Your task to perform on an android device: turn on translation in the chrome app Image 0: 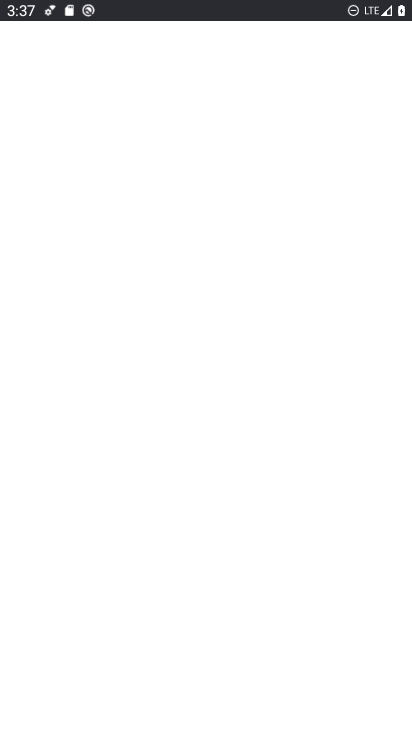
Step 0: drag from (227, 555) to (252, 210)
Your task to perform on an android device: turn on translation in the chrome app Image 1: 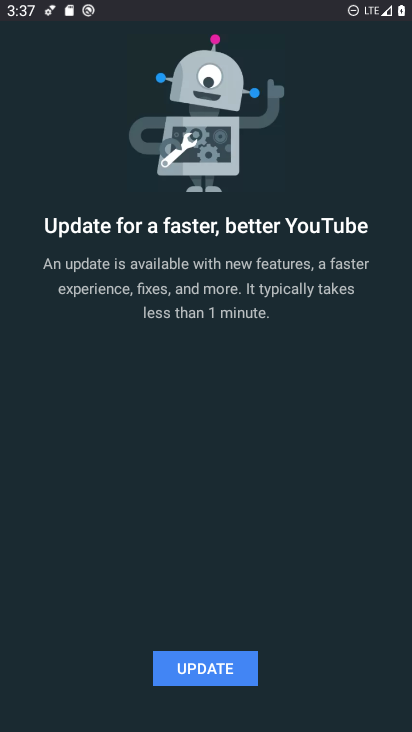
Step 1: press home button
Your task to perform on an android device: turn on translation in the chrome app Image 2: 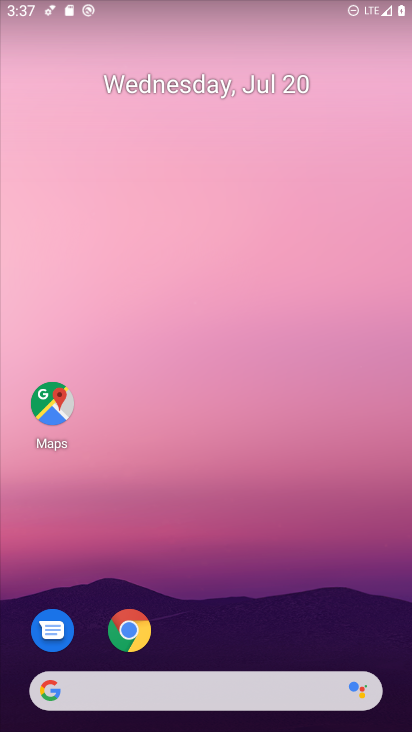
Step 2: click (125, 622)
Your task to perform on an android device: turn on translation in the chrome app Image 3: 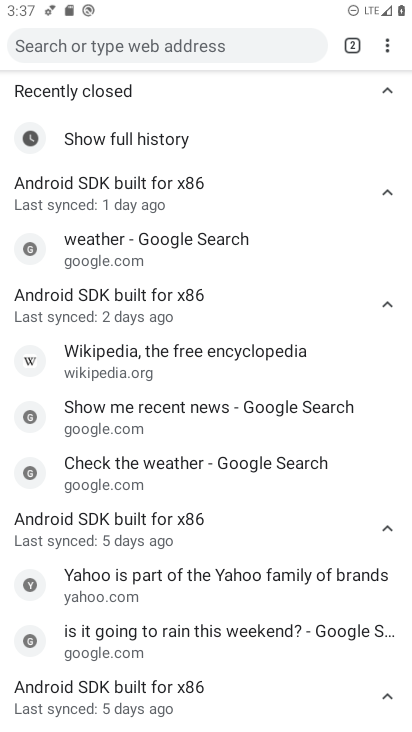
Step 3: click (383, 40)
Your task to perform on an android device: turn on translation in the chrome app Image 4: 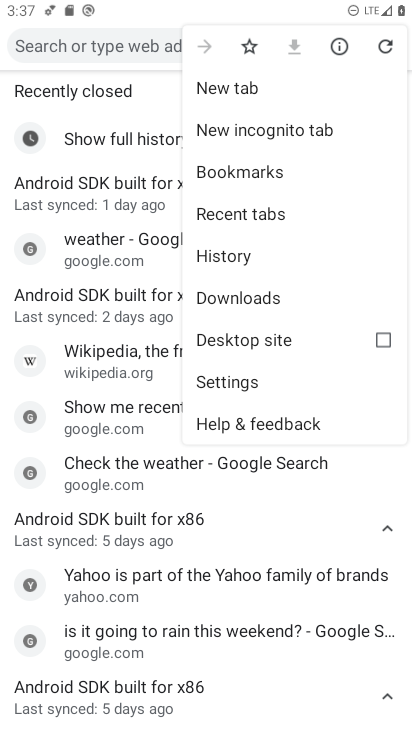
Step 4: click (244, 382)
Your task to perform on an android device: turn on translation in the chrome app Image 5: 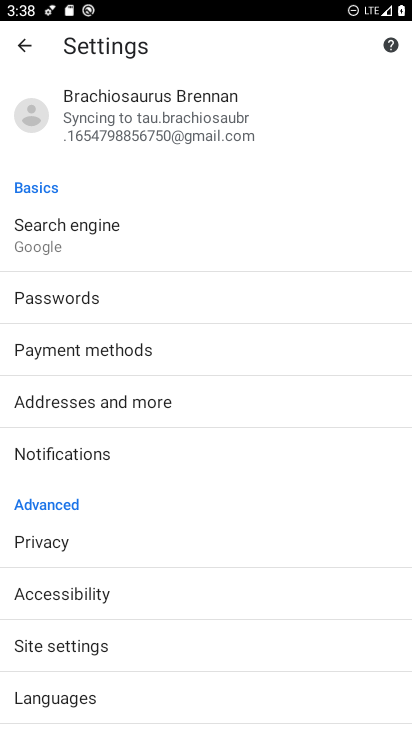
Step 5: click (101, 696)
Your task to perform on an android device: turn on translation in the chrome app Image 6: 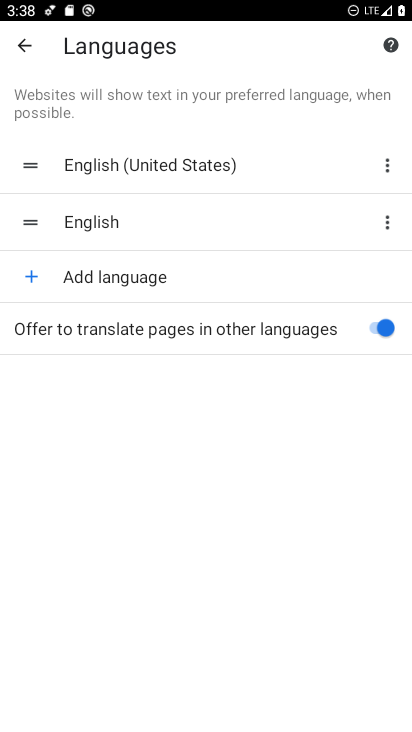
Step 6: task complete